Your task to perform on an android device: Go to Wikipedia Image 0: 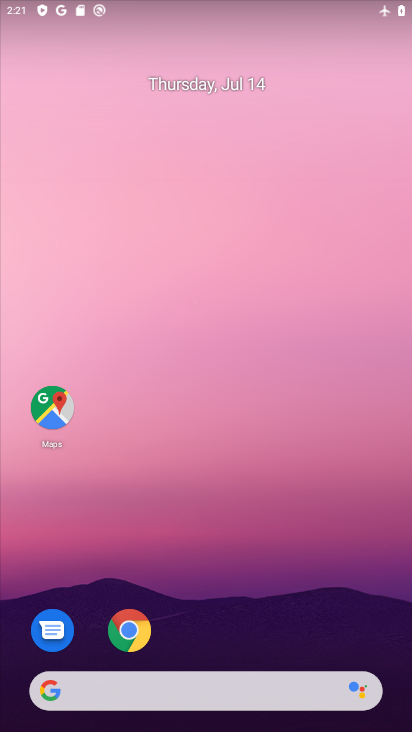
Step 0: drag from (231, 666) to (319, 229)
Your task to perform on an android device: Go to Wikipedia Image 1: 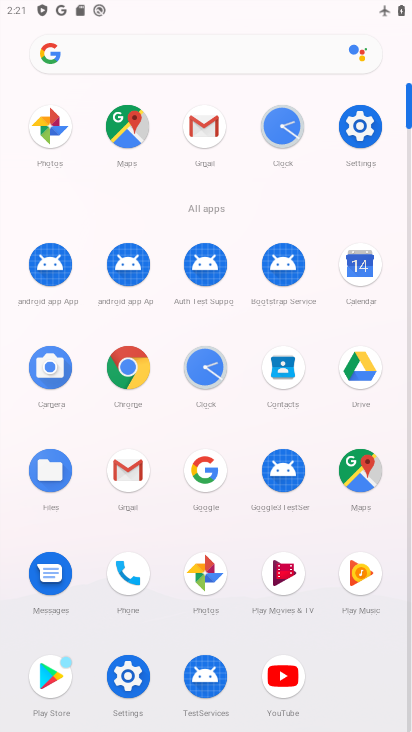
Step 1: click (128, 390)
Your task to perform on an android device: Go to Wikipedia Image 2: 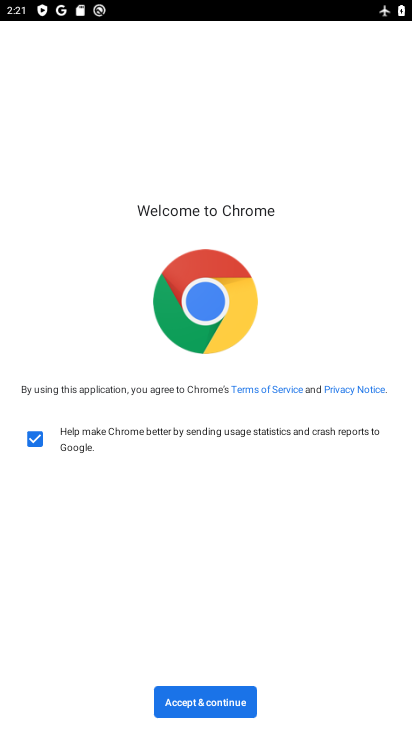
Step 2: click (227, 682)
Your task to perform on an android device: Go to Wikipedia Image 3: 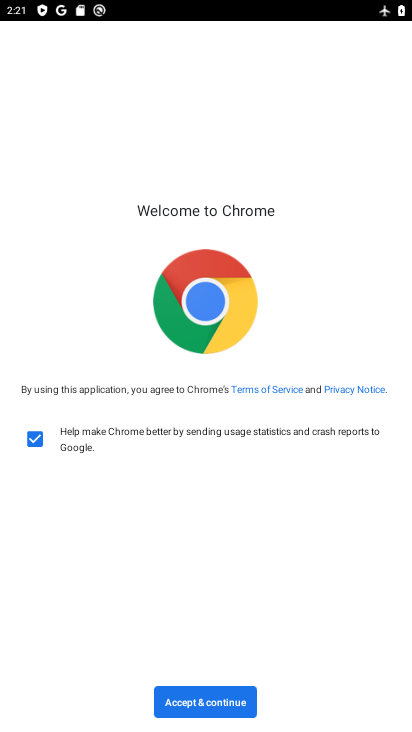
Step 3: click (241, 697)
Your task to perform on an android device: Go to Wikipedia Image 4: 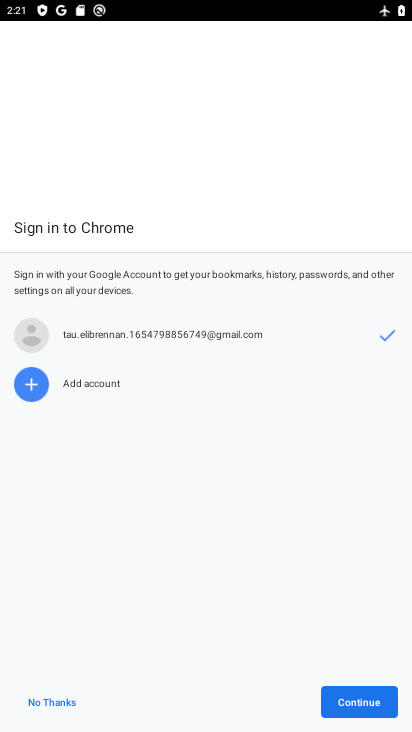
Step 4: click (359, 694)
Your task to perform on an android device: Go to Wikipedia Image 5: 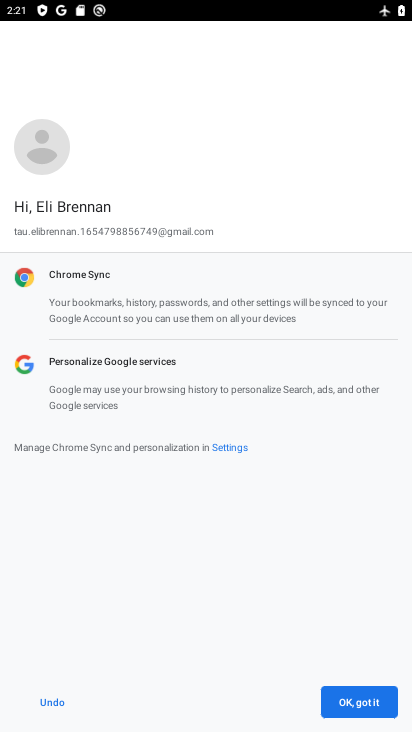
Step 5: click (355, 697)
Your task to perform on an android device: Go to Wikipedia Image 6: 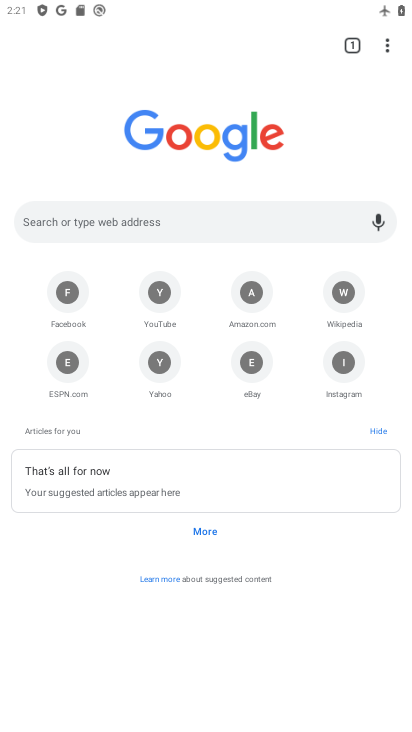
Step 6: click (345, 299)
Your task to perform on an android device: Go to Wikipedia Image 7: 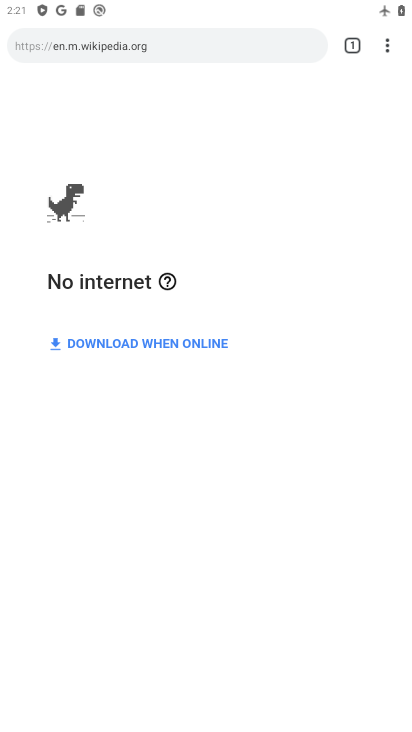
Step 7: drag from (378, 76) to (348, 727)
Your task to perform on an android device: Go to Wikipedia Image 8: 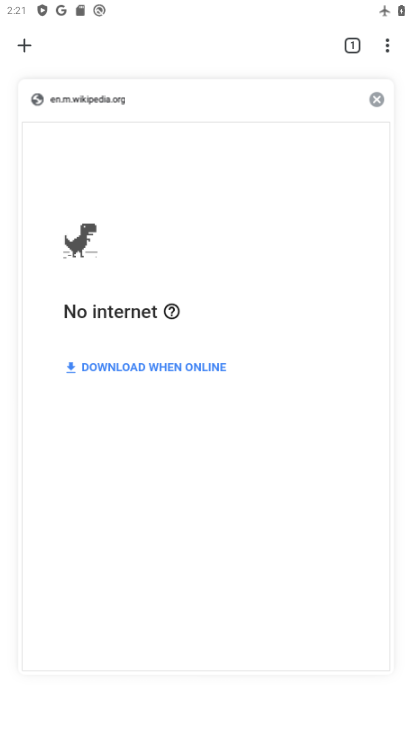
Step 8: drag from (327, 565) to (313, 710)
Your task to perform on an android device: Go to Wikipedia Image 9: 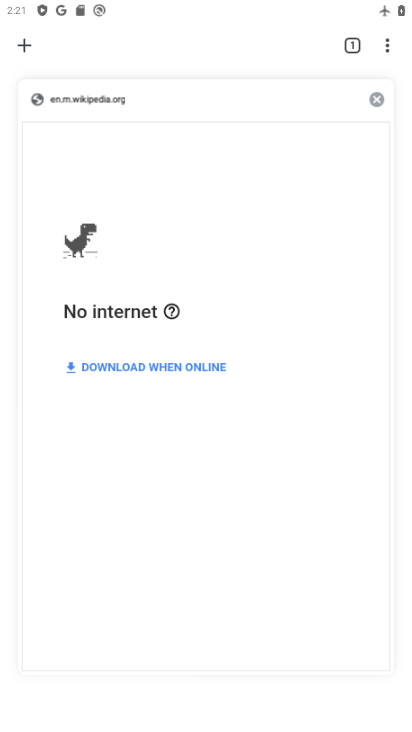
Step 9: drag from (229, 3) to (212, 663)
Your task to perform on an android device: Go to Wikipedia Image 10: 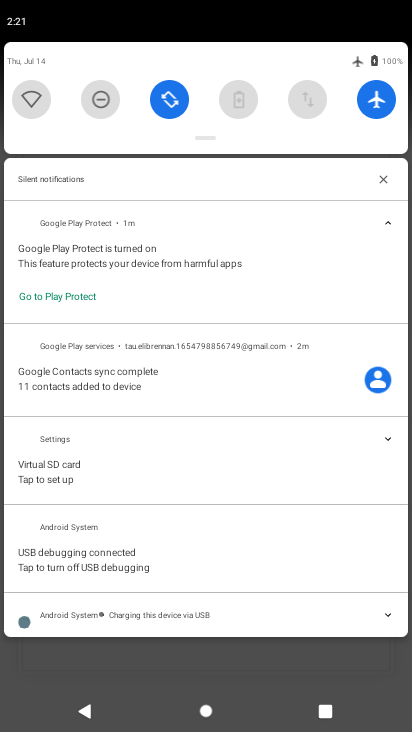
Step 10: click (379, 10)
Your task to perform on an android device: Go to Wikipedia Image 11: 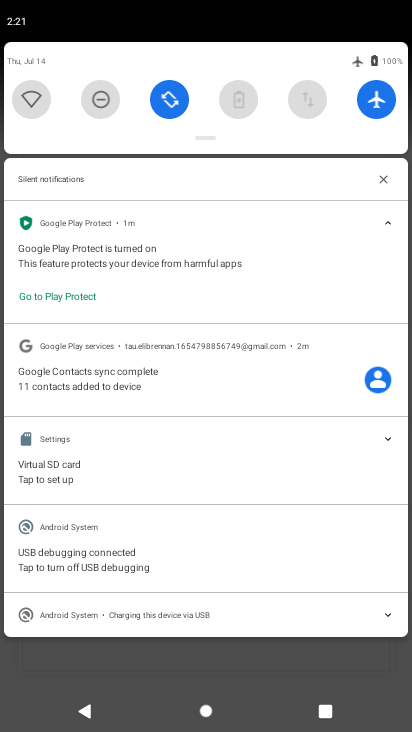
Step 11: task complete